Your task to perform on an android device: open a new tab in the chrome app Image 0: 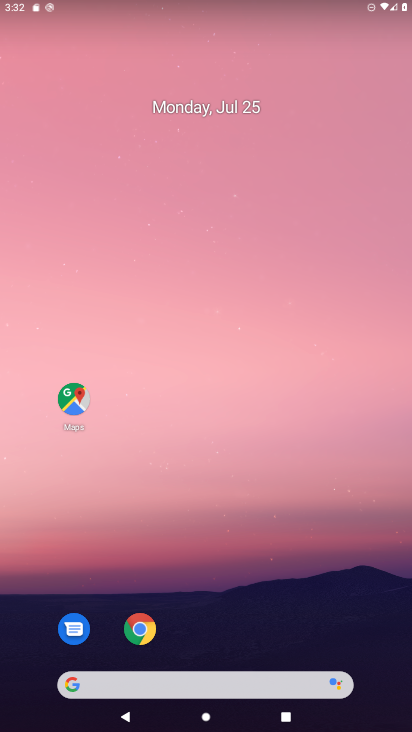
Step 0: click (151, 625)
Your task to perform on an android device: open a new tab in the chrome app Image 1: 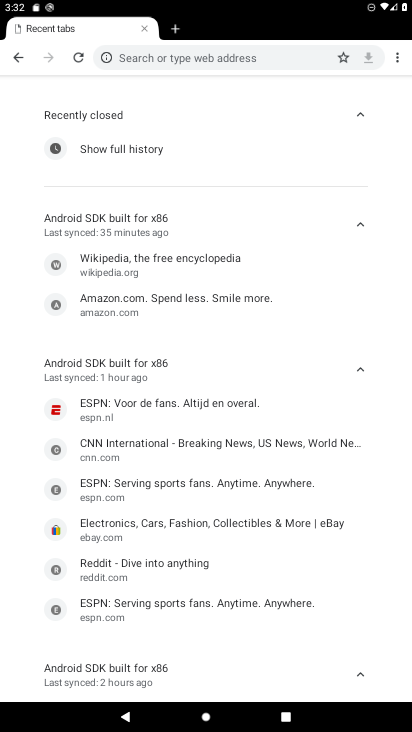
Step 1: click (397, 59)
Your task to perform on an android device: open a new tab in the chrome app Image 2: 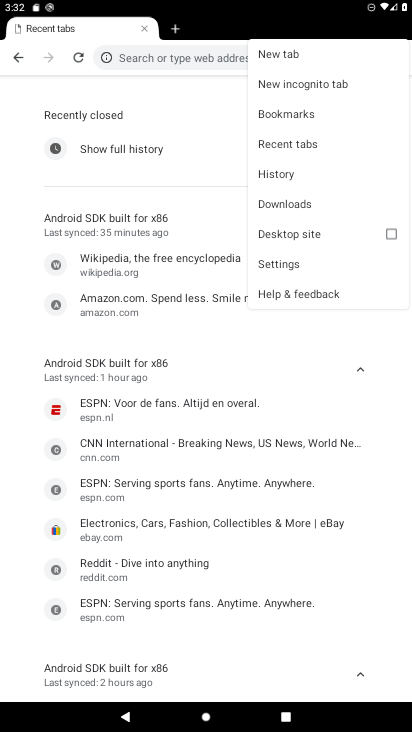
Step 2: click (320, 58)
Your task to perform on an android device: open a new tab in the chrome app Image 3: 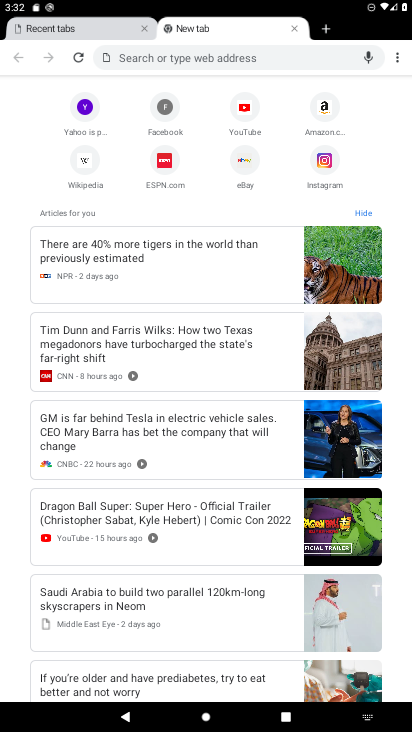
Step 3: task complete